Your task to perform on an android device: Check the news Image 0: 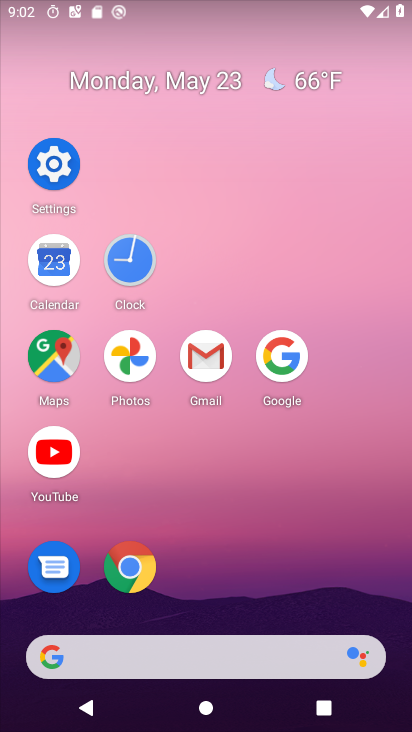
Step 0: click (264, 349)
Your task to perform on an android device: Check the news Image 1: 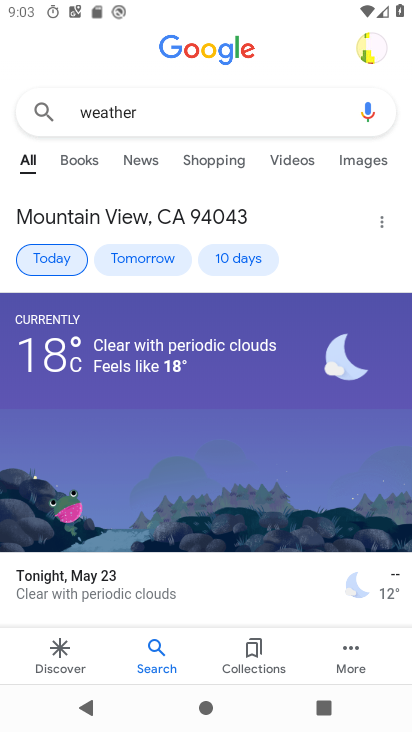
Step 1: click (175, 115)
Your task to perform on an android device: Check the news Image 2: 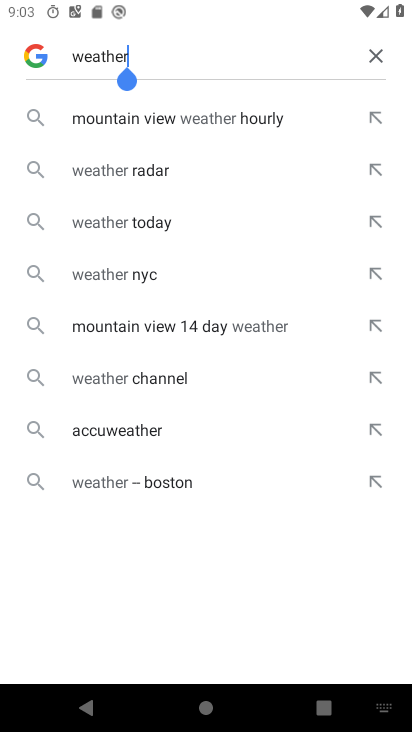
Step 2: click (370, 56)
Your task to perform on an android device: Check the news Image 3: 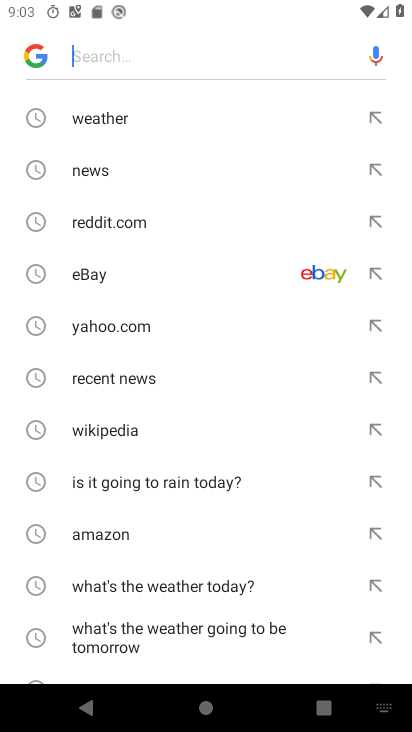
Step 3: click (102, 160)
Your task to perform on an android device: Check the news Image 4: 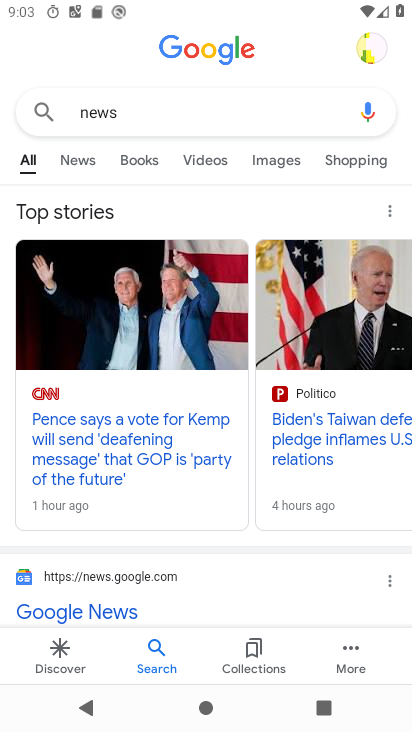
Step 4: task complete